Your task to perform on an android device: turn off location history Image 0: 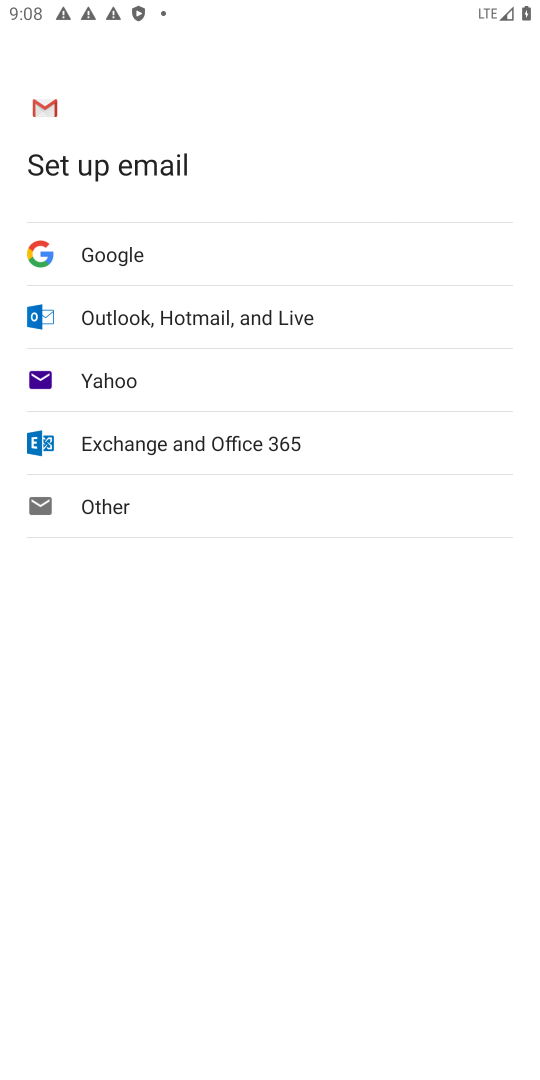
Step 0: press home button
Your task to perform on an android device: turn off location history Image 1: 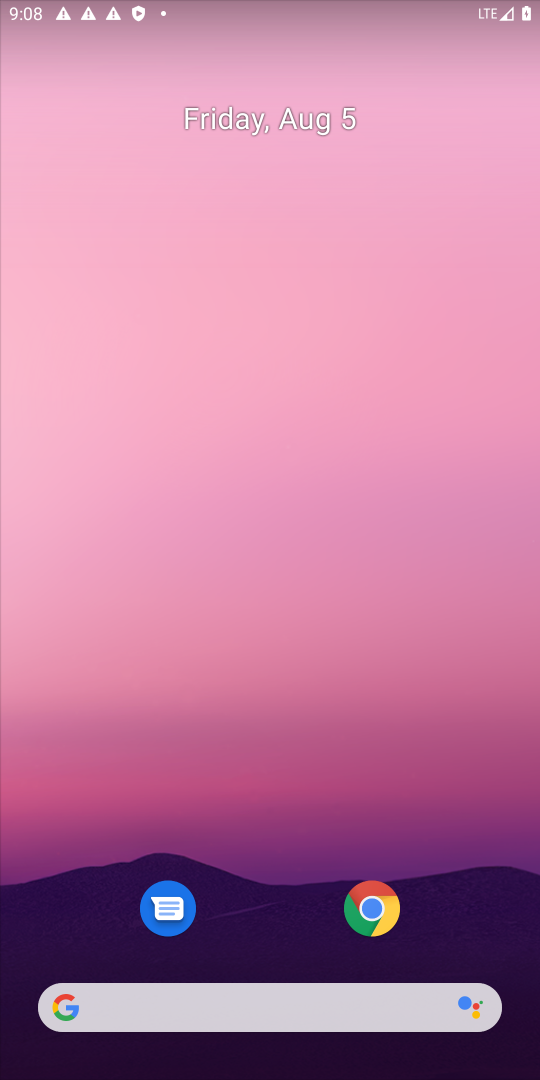
Step 1: drag from (263, 943) to (224, 257)
Your task to perform on an android device: turn off location history Image 2: 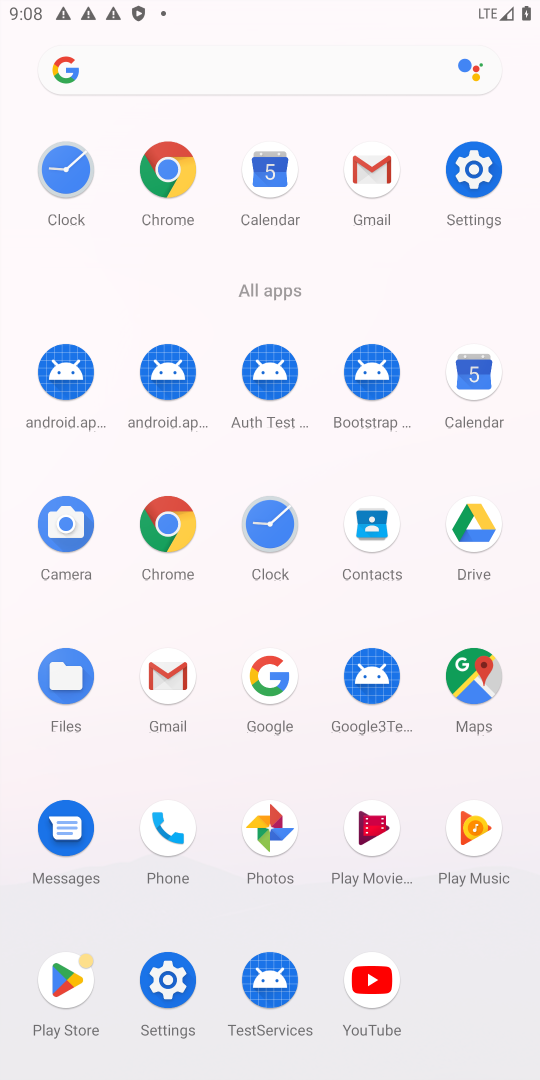
Step 2: click (462, 681)
Your task to perform on an android device: turn off location history Image 3: 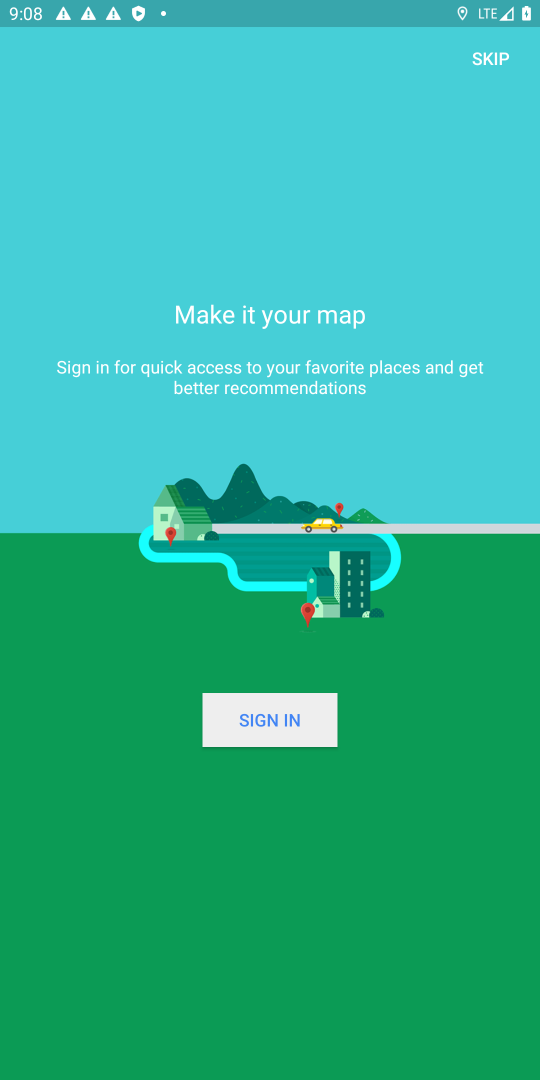
Step 3: task complete